Your task to perform on an android device: Go to accessibility settings Image 0: 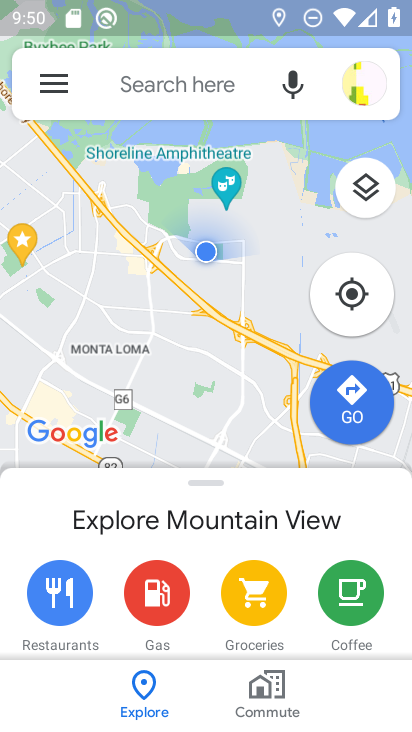
Step 0: press home button
Your task to perform on an android device: Go to accessibility settings Image 1: 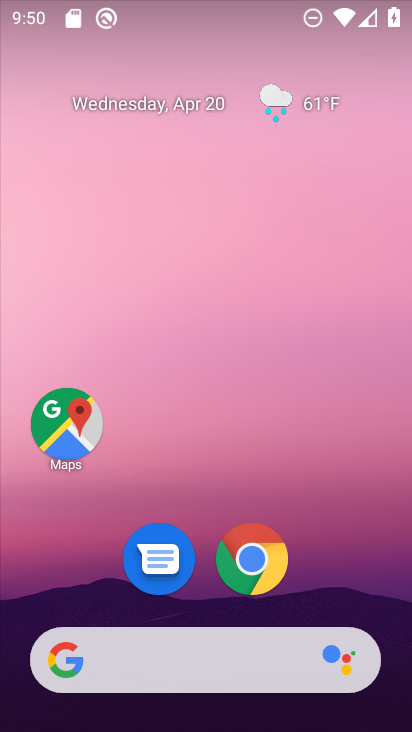
Step 1: drag from (381, 608) to (344, 176)
Your task to perform on an android device: Go to accessibility settings Image 2: 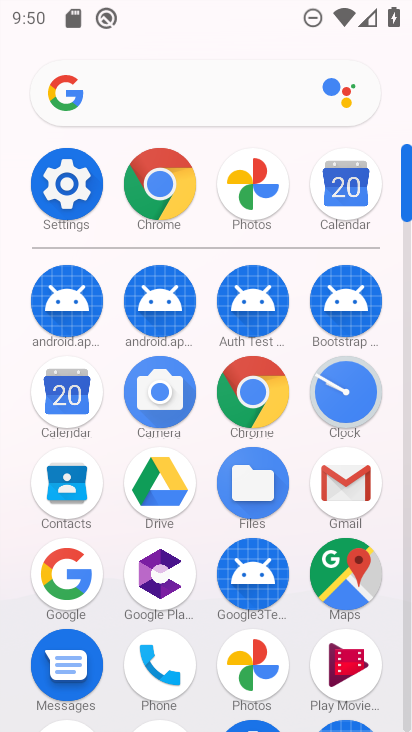
Step 2: click (407, 693)
Your task to perform on an android device: Go to accessibility settings Image 3: 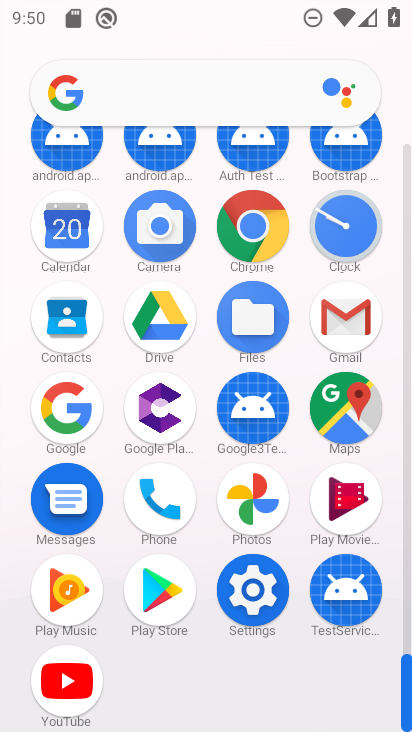
Step 3: click (249, 587)
Your task to perform on an android device: Go to accessibility settings Image 4: 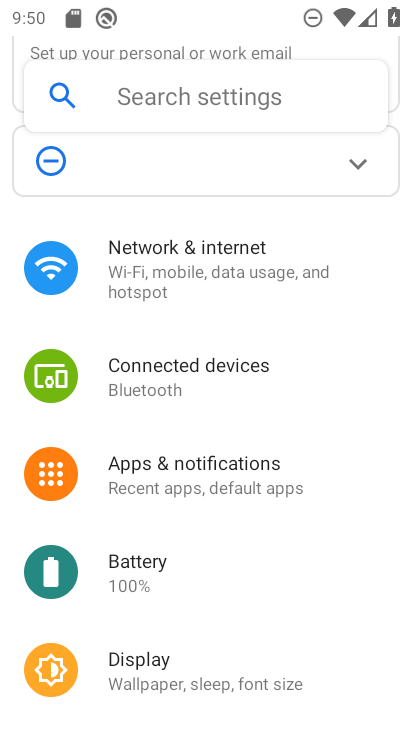
Step 4: drag from (313, 648) to (324, 292)
Your task to perform on an android device: Go to accessibility settings Image 5: 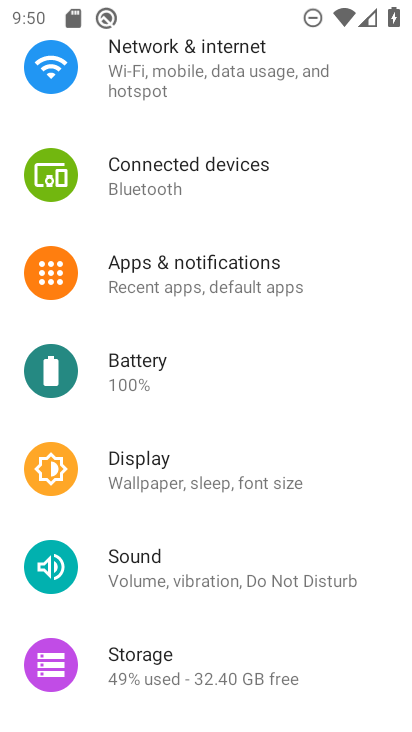
Step 5: drag from (354, 534) to (294, 279)
Your task to perform on an android device: Go to accessibility settings Image 6: 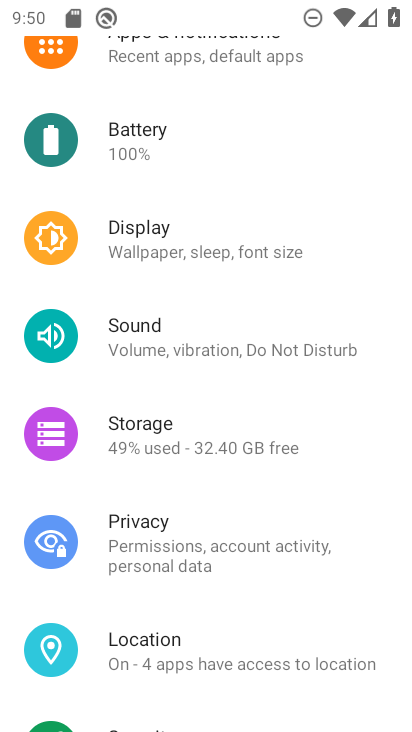
Step 6: drag from (323, 605) to (333, 281)
Your task to perform on an android device: Go to accessibility settings Image 7: 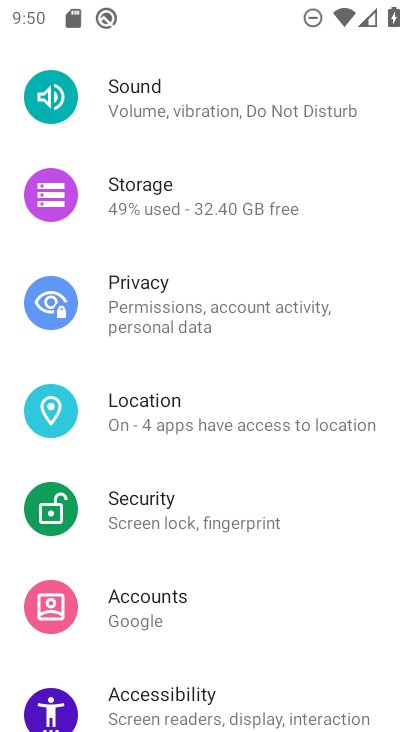
Step 7: drag from (283, 660) to (305, 296)
Your task to perform on an android device: Go to accessibility settings Image 8: 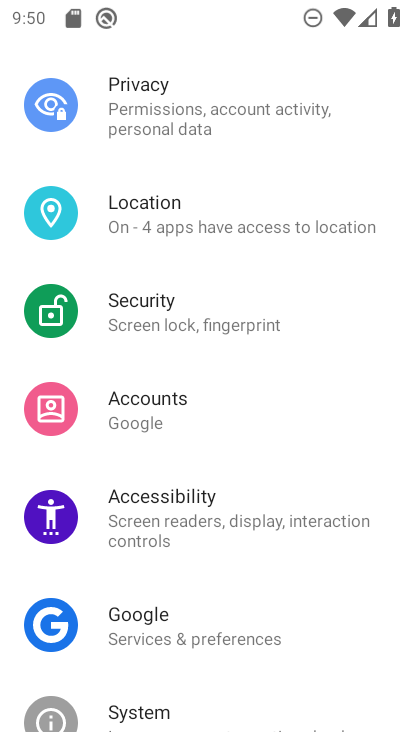
Step 8: click (178, 516)
Your task to perform on an android device: Go to accessibility settings Image 9: 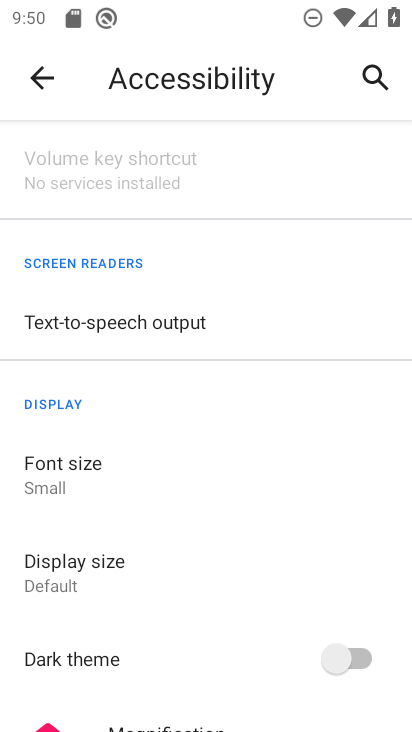
Step 9: task complete